Your task to perform on an android device: Open wifi settings Image 0: 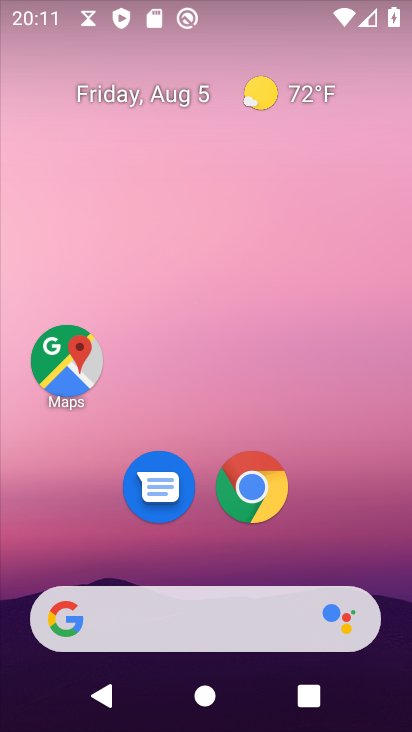
Step 0: click (153, 618)
Your task to perform on an android device: Open wifi settings Image 1: 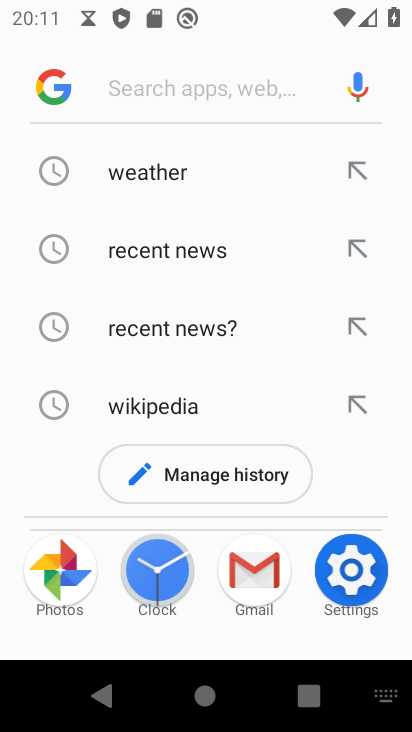
Step 1: press home button
Your task to perform on an android device: Open wifi settings Image 2: 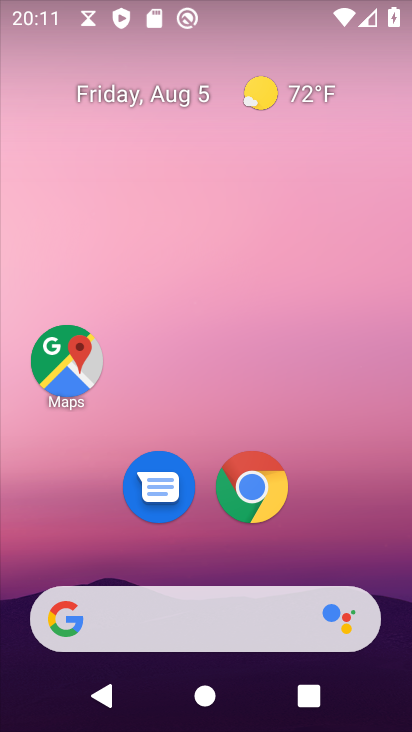
Step 2: drag from (170, 579) to (295, 71)
Your task to perform on an android device: Open wifi settings Image 3: 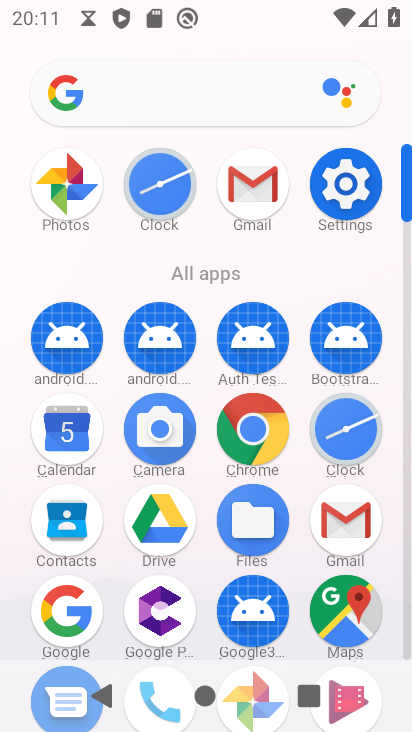
Step 3: click (354, 195)
Your task to perform on an android device: Open wifi settings Image 4: 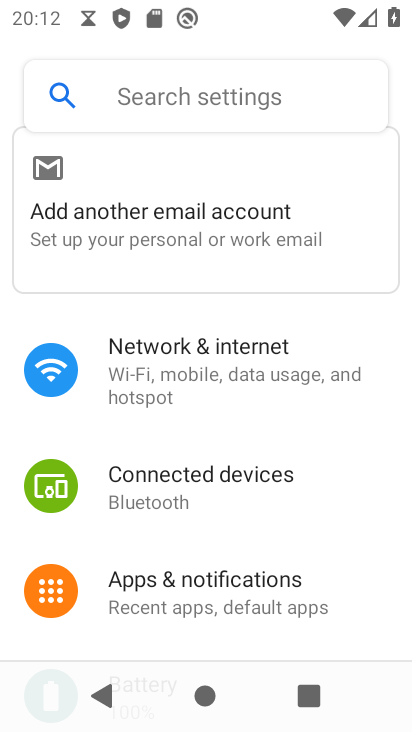
Step 4: click (202, 352)
Your task to perform on an android device: Open wifi settings Image 5: 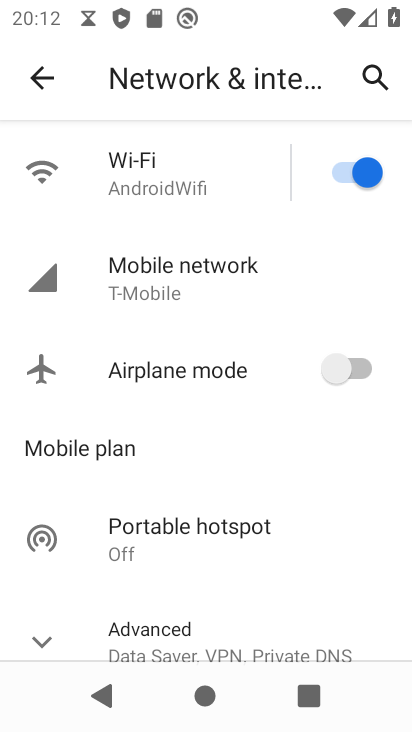
Step 5: click (148, 174)
Your task to perform on an android device: Open wifi settings Image 6: 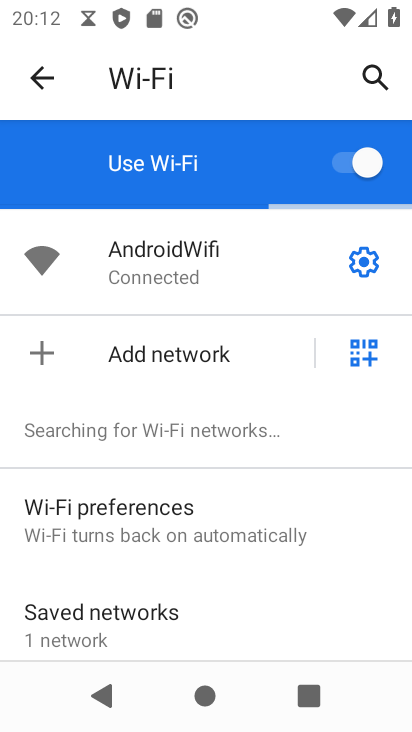
Step 6: task complete